Your task to perform on an android device: search for starred emails in the gmail app Image 0: 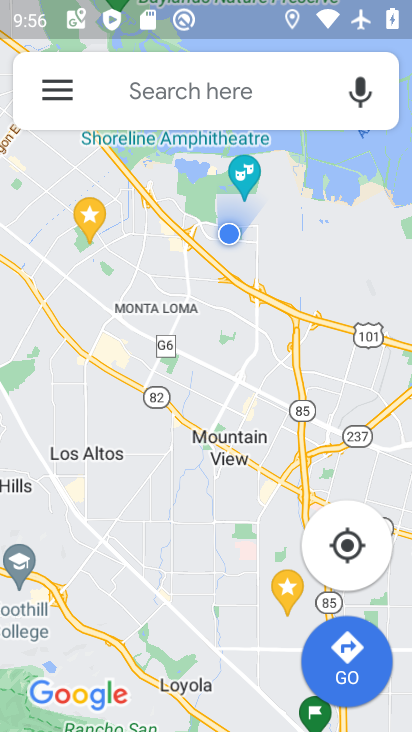
Step 0: press home button
Your task to perform on an android device: search for starred emails in the gmail app Image 1: 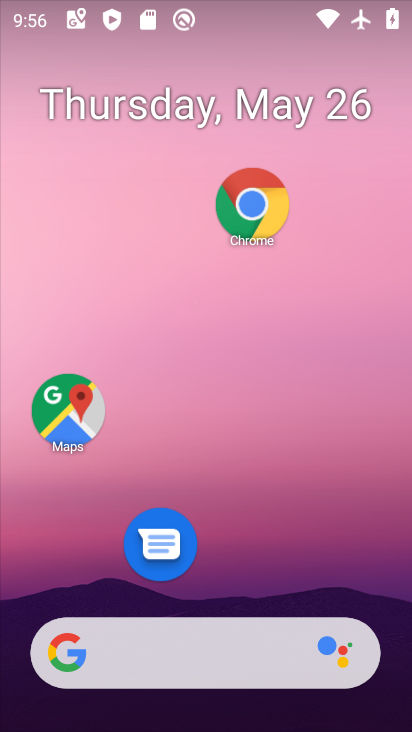
Step 1: drag from (229, 582) to (261, 144)
Your task to perform on an android device: search for starred emails in the gmail app Image 2: 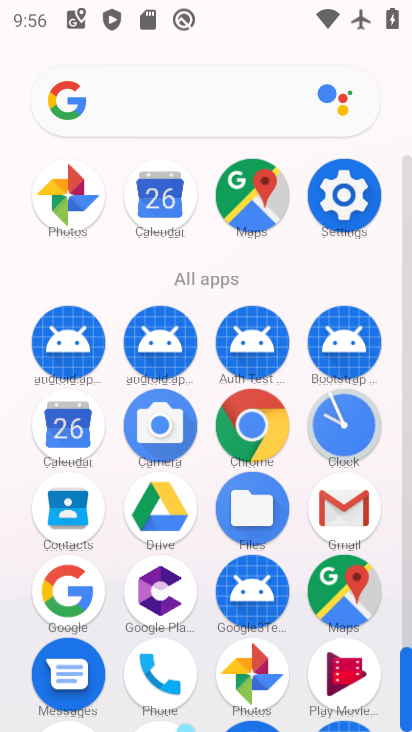
Step 2: click (344, 493)
Your task to perform on an android device: search for starred emails in the gmail app Image 3: 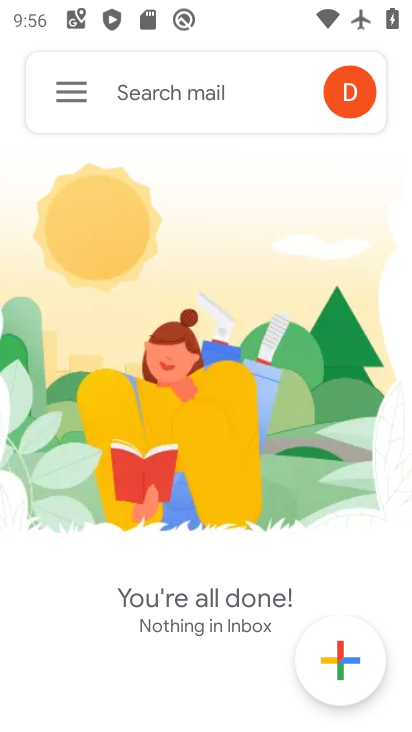
Step 3: press home button
Your task to perform on an android device: search for starred emails in the gmail app Image 4: 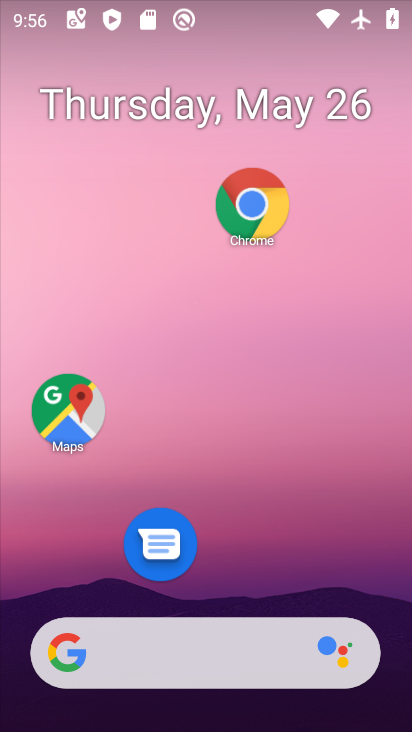
Step 4: drag from (231, 572) to (280, 138)
Your task to perform on an android device: search for starred emails in the gmail app Image 5: 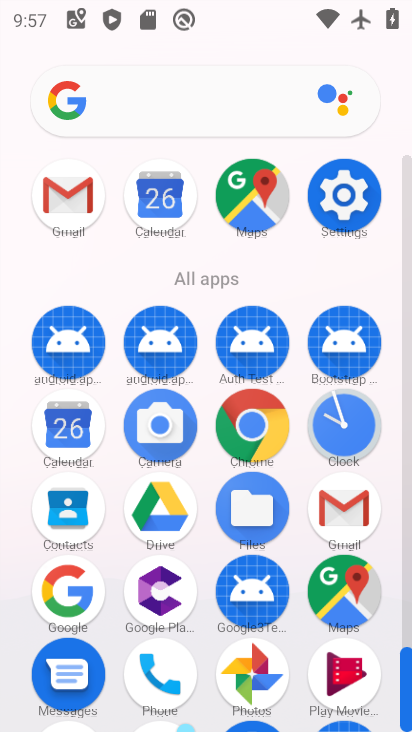
Step 5: click (76, 194)
Your task to perform on an android device: search for starred emails in the gmail app Image 6: 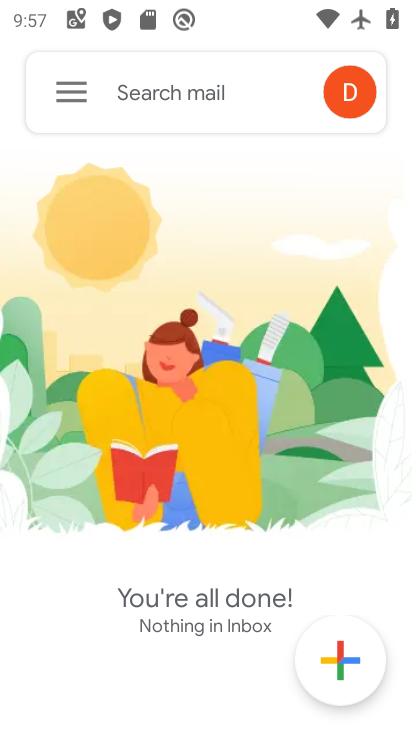
Step 6: click (66, 92)
Your task to perform on an android device: search for starred emails in the gmail app Image 7: 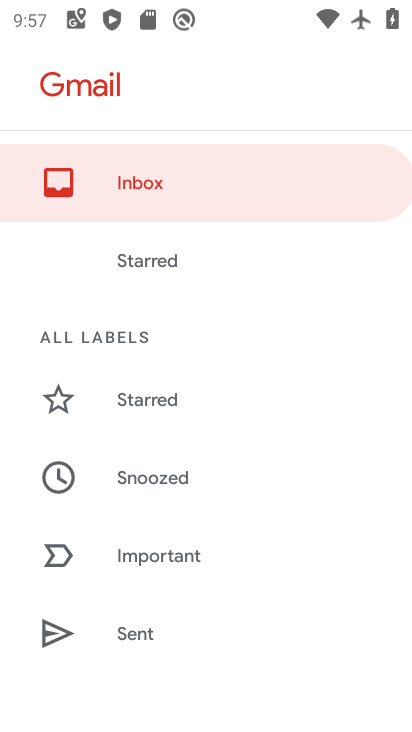
Step 7: click (200, 397)
Your task to perform on an android device: search for starred emails in the gmail app Image 8: 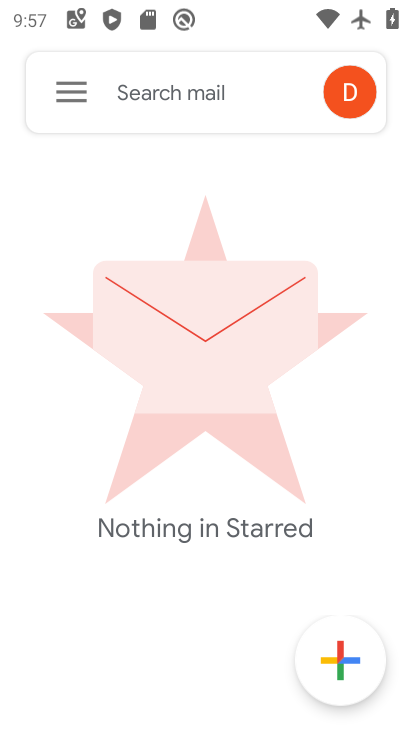
Step 8: task complete